Your task to perform on an android device: turn off javascript in the chrome app Image 0: 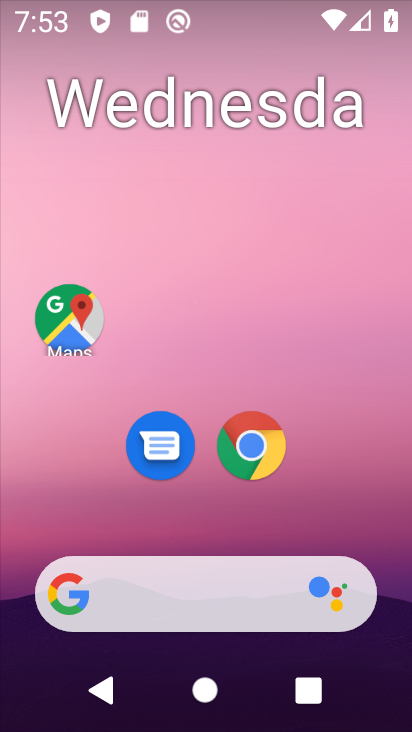
Step 0: drag from (188, 539) to (178, 53)
Your task to perform on an android device: turn off javascript in the chrome app Image 1: 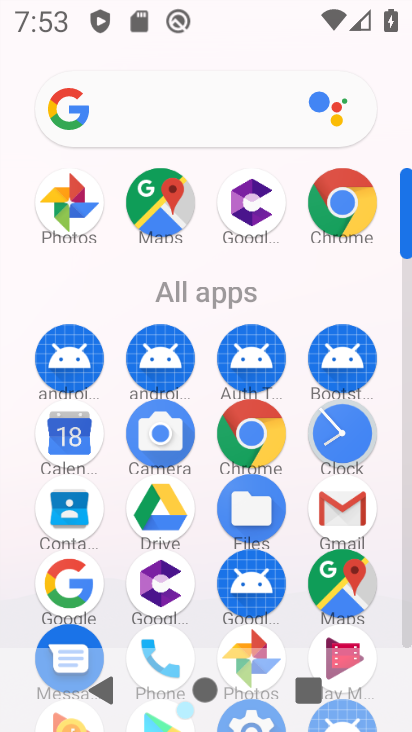
Step 1: click (219, 437)
Your task to perform on an android device: turn off javascript in the chrome app Image 2: 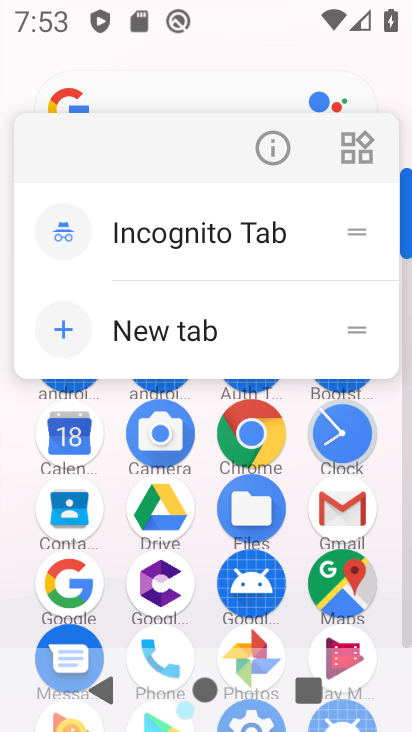
Step 2: click (236, 434)
Your task to perform on an android device: turn off javascript in the chrome app Image 3: 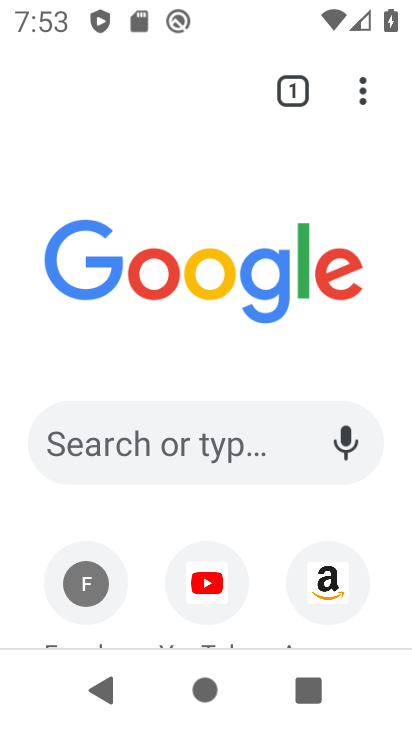
Step 3: click (342, 99)
Your task to perform on an android device: turn off javascript in the chrome app Image 4: 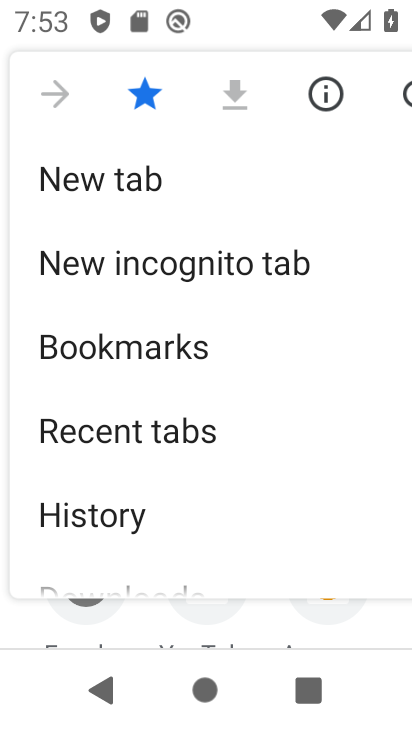
Step 4: drag from (283, 555) to (273, 208)
Your task to perform on an android device: turn off javascript in the chrome app Image 5: 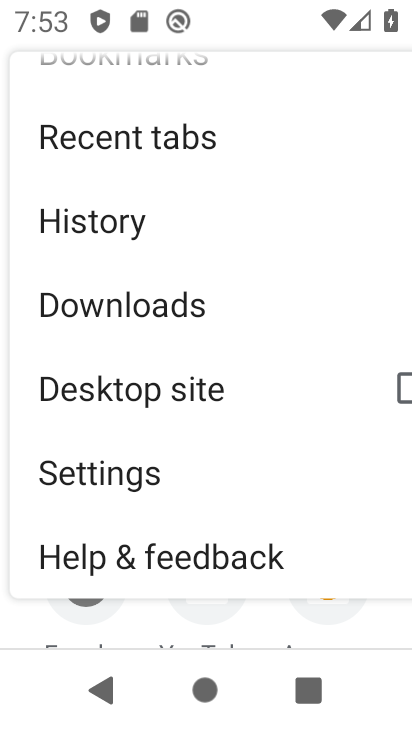
Step 5: click (191, 481)
Your task to perform on an android device: turn off javascript in the chrome app Image 6: 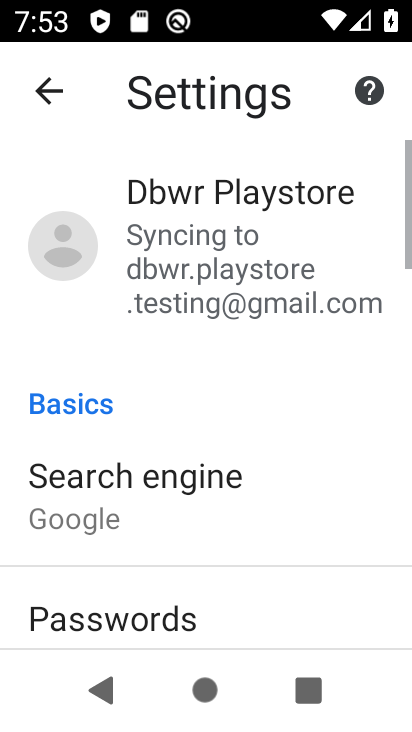
Step 6: drag from (193, 477) to (171, 162)
Your task to perform on an android device: turn off javascript in the chrome app Image 7: 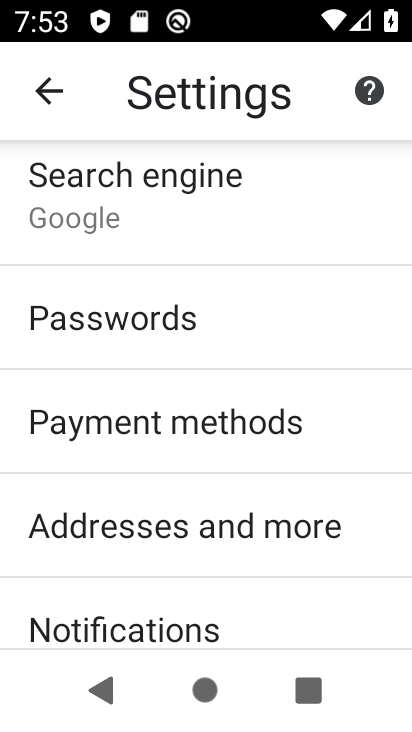
Step 7: drag from (194, 470) to (188, 143)
Your task to perform on an android device: turn off javascript in the chrome app Image 8: 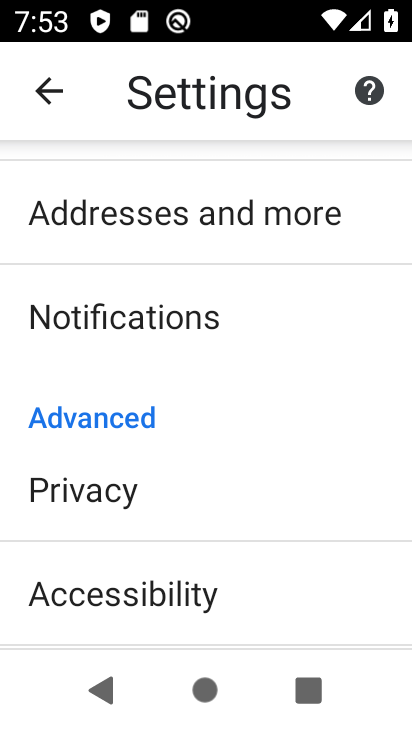
Step 8: drag from (201, 561) to (178, 125)
Your task to perform on an android device: turn off javascript in the chrome app Image 9: 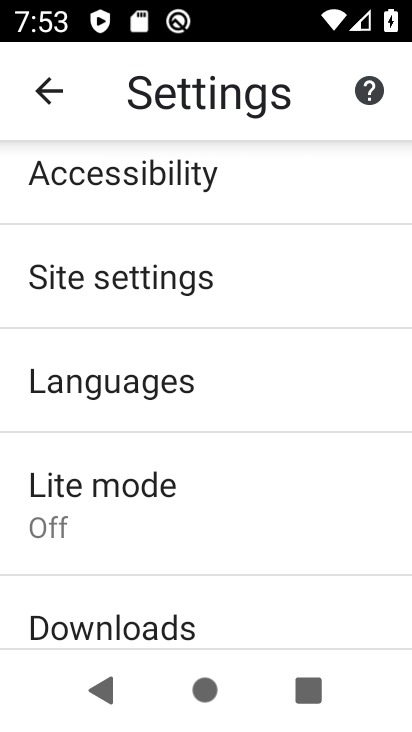
Step 9: click (117, 295)
Your task to perform on an android device: turn off javascript in the chrome app Image 10: 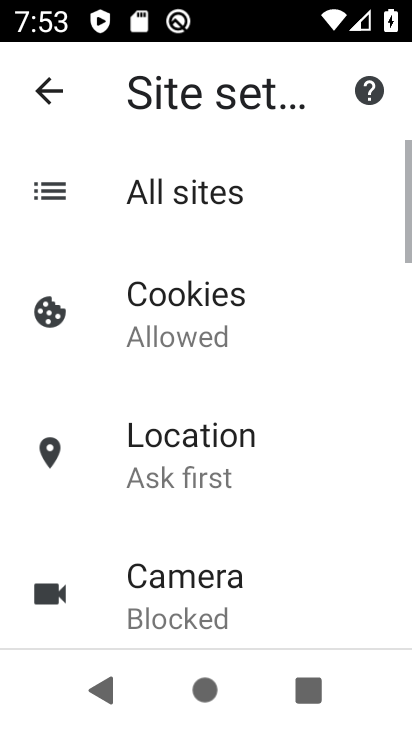
Step 10: drag from (205, 577) to (205, 153)
Your task to perform on an android device: turn off javascript in the chrome app Image 11: 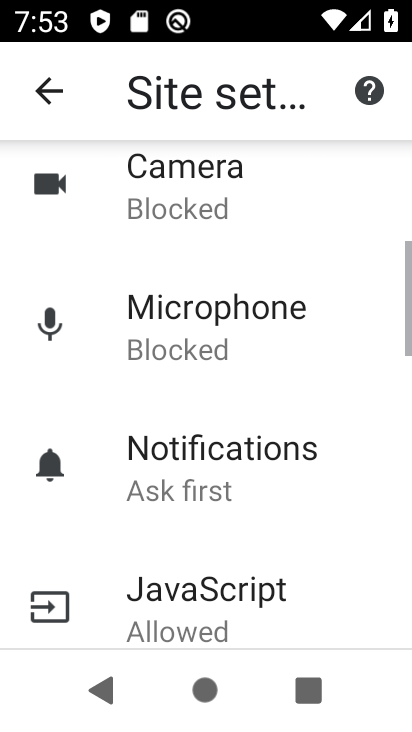
Step 11: click (241, 612)
Your task to perform on an android device: turn off javascript in the chrome app Image 12: 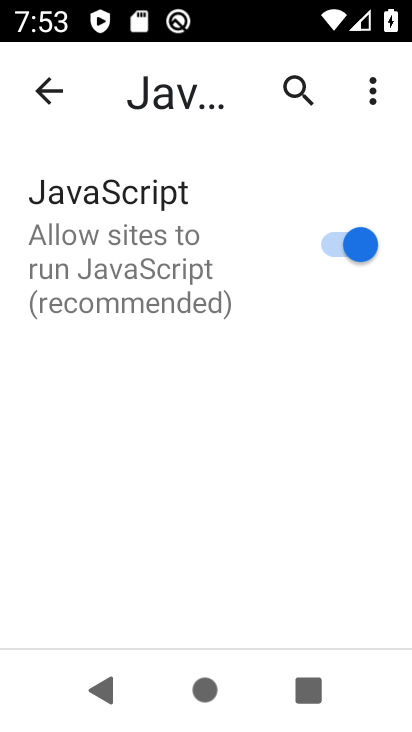
Step 12: click (329, 236)
Your task to perform on an android device: turn off javascript in the chrome app Image 13: 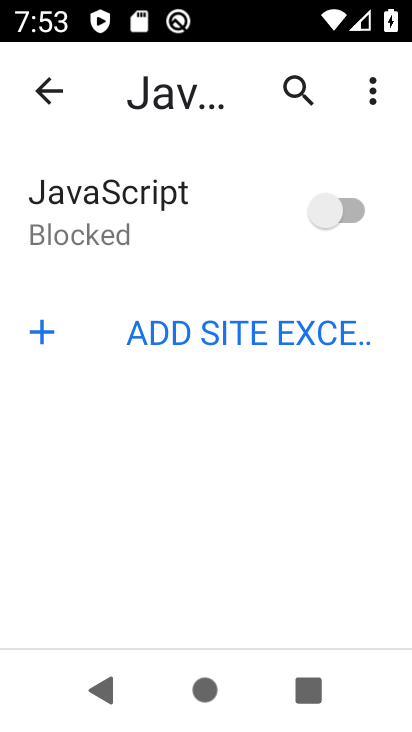
Step 13: task complete